Your task to perform on an android device: Go to internet settings Image 0: 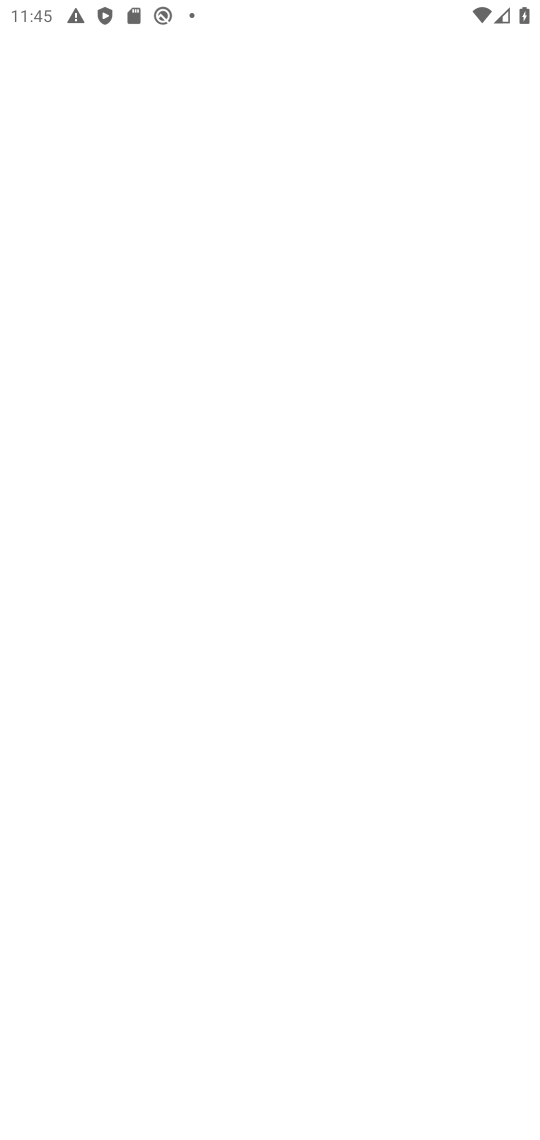
Step 0: press home button
Your task to perform on an android device: Go to internet settings Image 1: 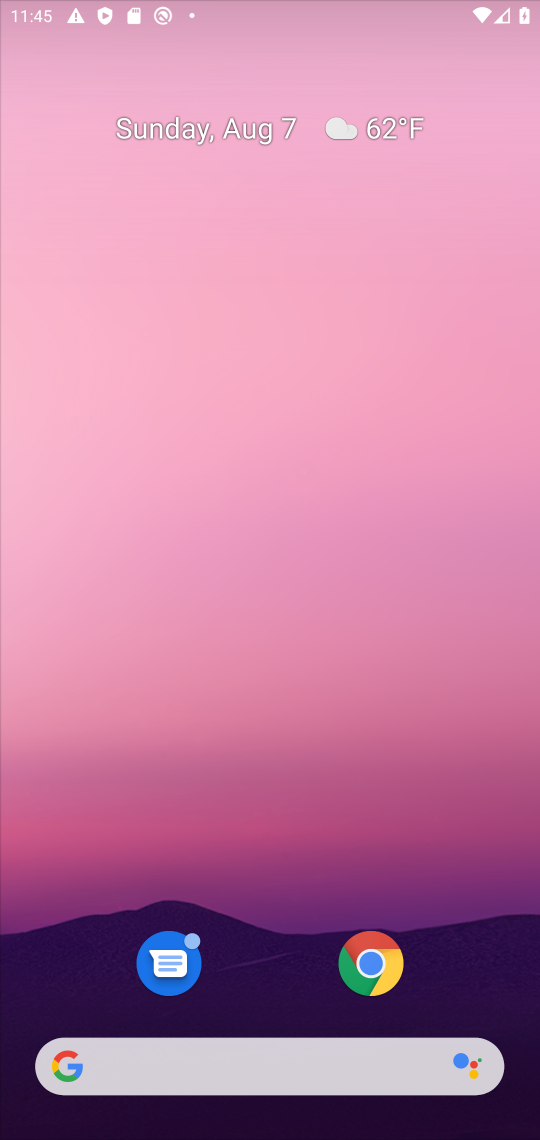
Step 1: drag from (516, 924) to (248, 46)
Your task to perform on an android device: Go to internet settings Image 2: 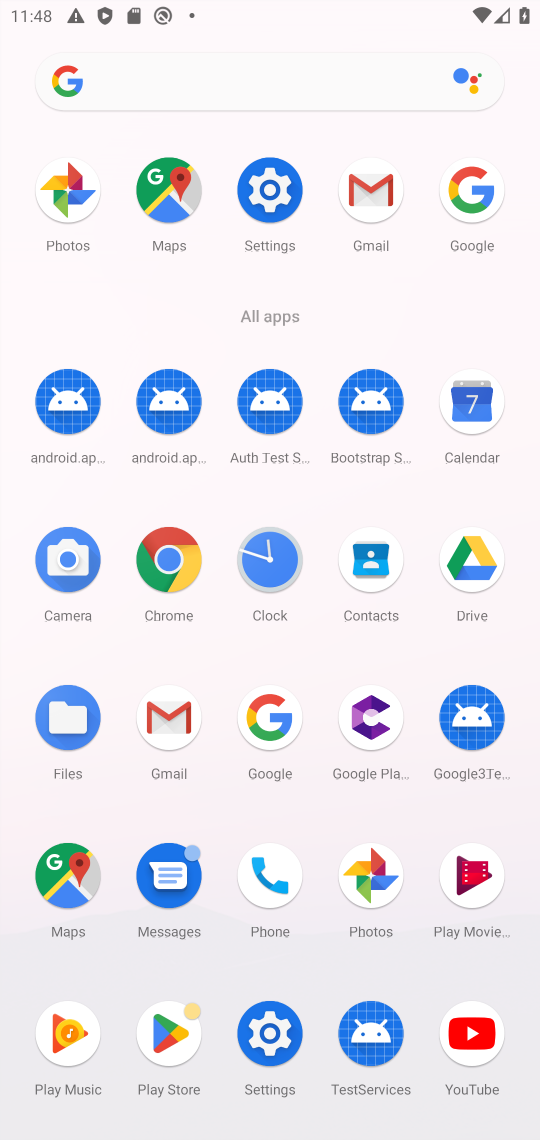
Step 2: click (274, 1031)
Your task to perform on an android device: Go to internet settings Image 3: 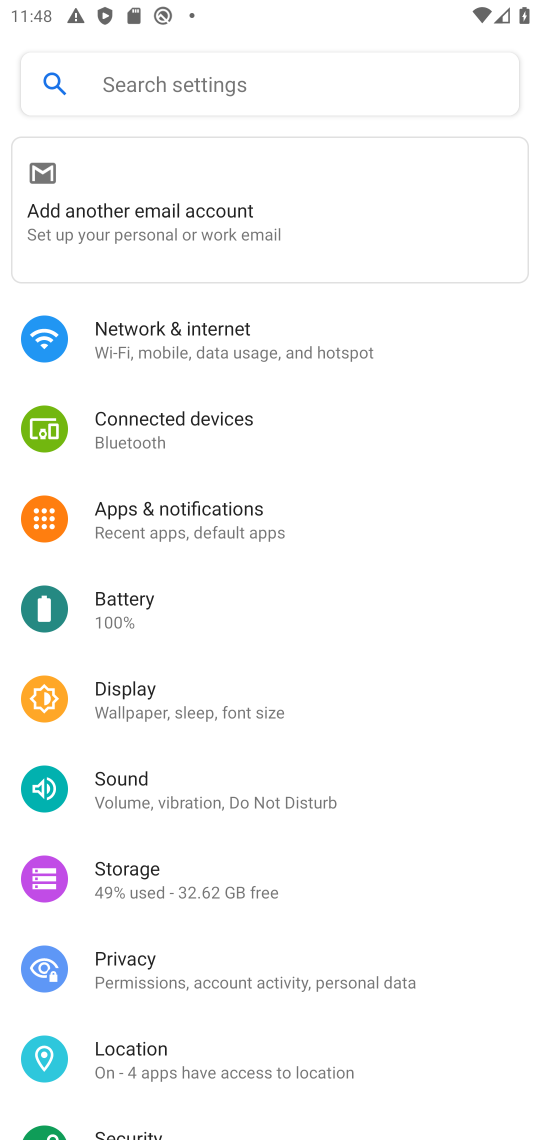
Step 3: click (168, 353)
Your task to perform on an android device: Go to internet settings Image 4: 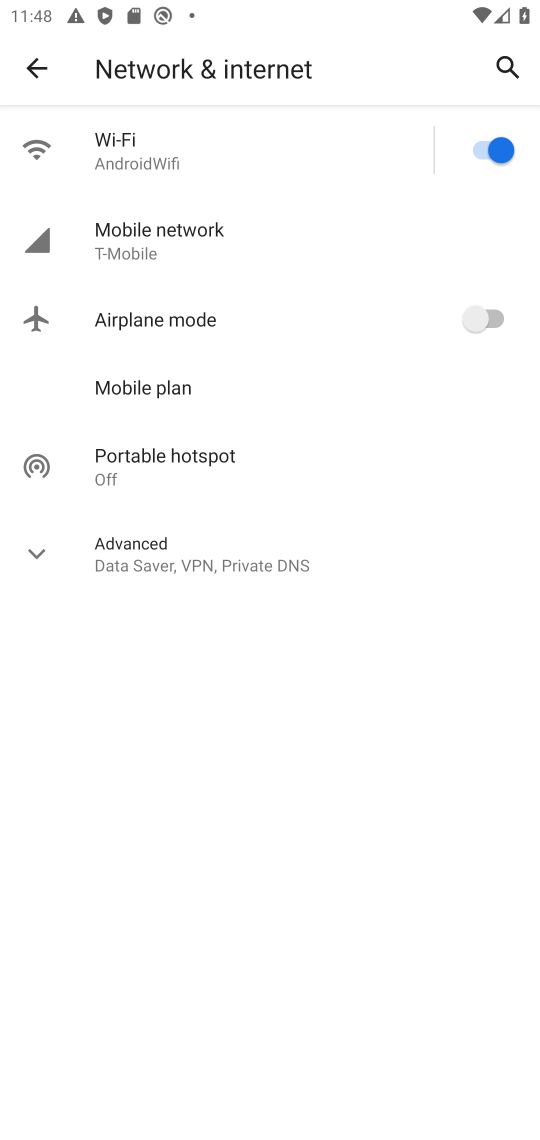
Step 4: task complete